Your task to perform on an android device: Is it going to rain this weekend? Image 0: 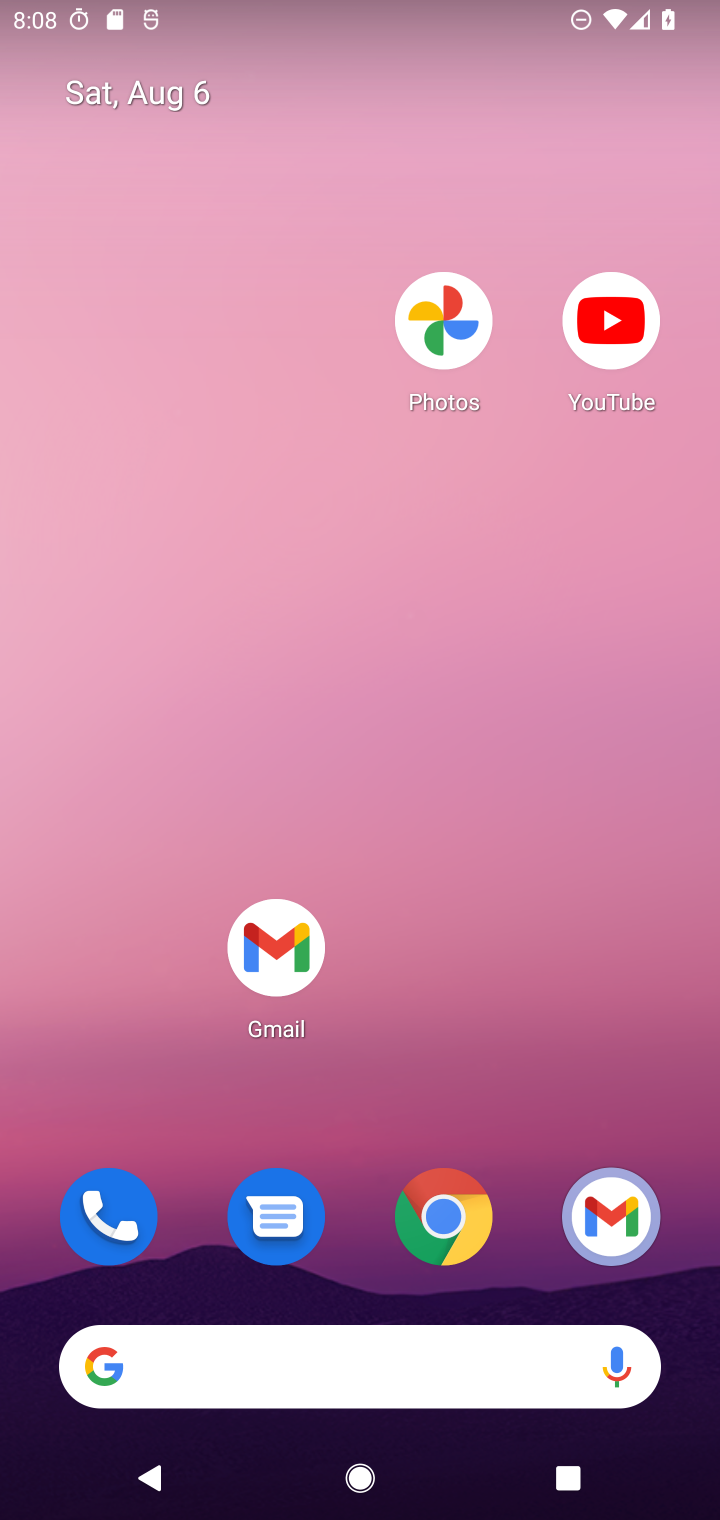
Step 0: drag from (489, 660) to (432, 84)
Your task to perform on an android device: Is it going to rain this weekend? Image 1: 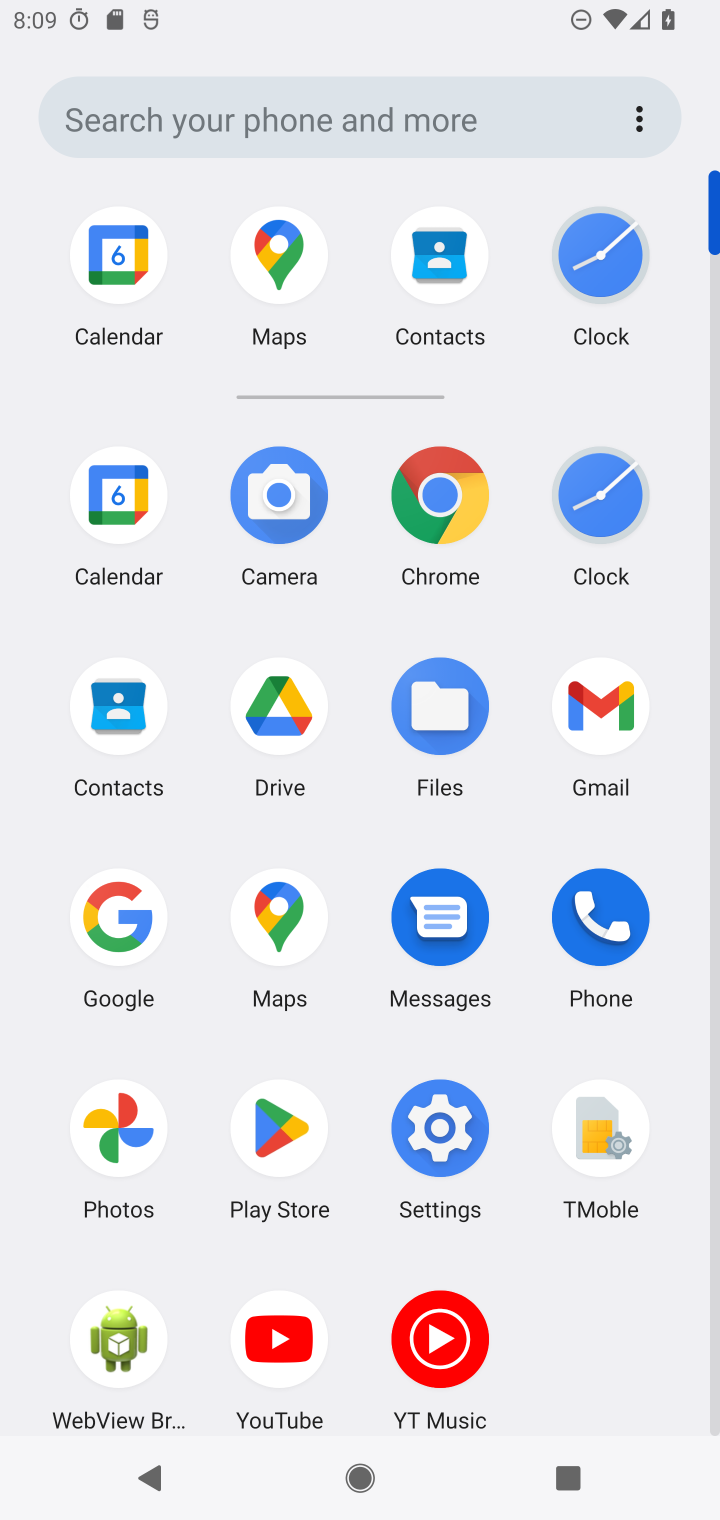
Step 1: click (435, 505)
Your task to perform on an android device: Is it going to rain this weekend? Image 2: 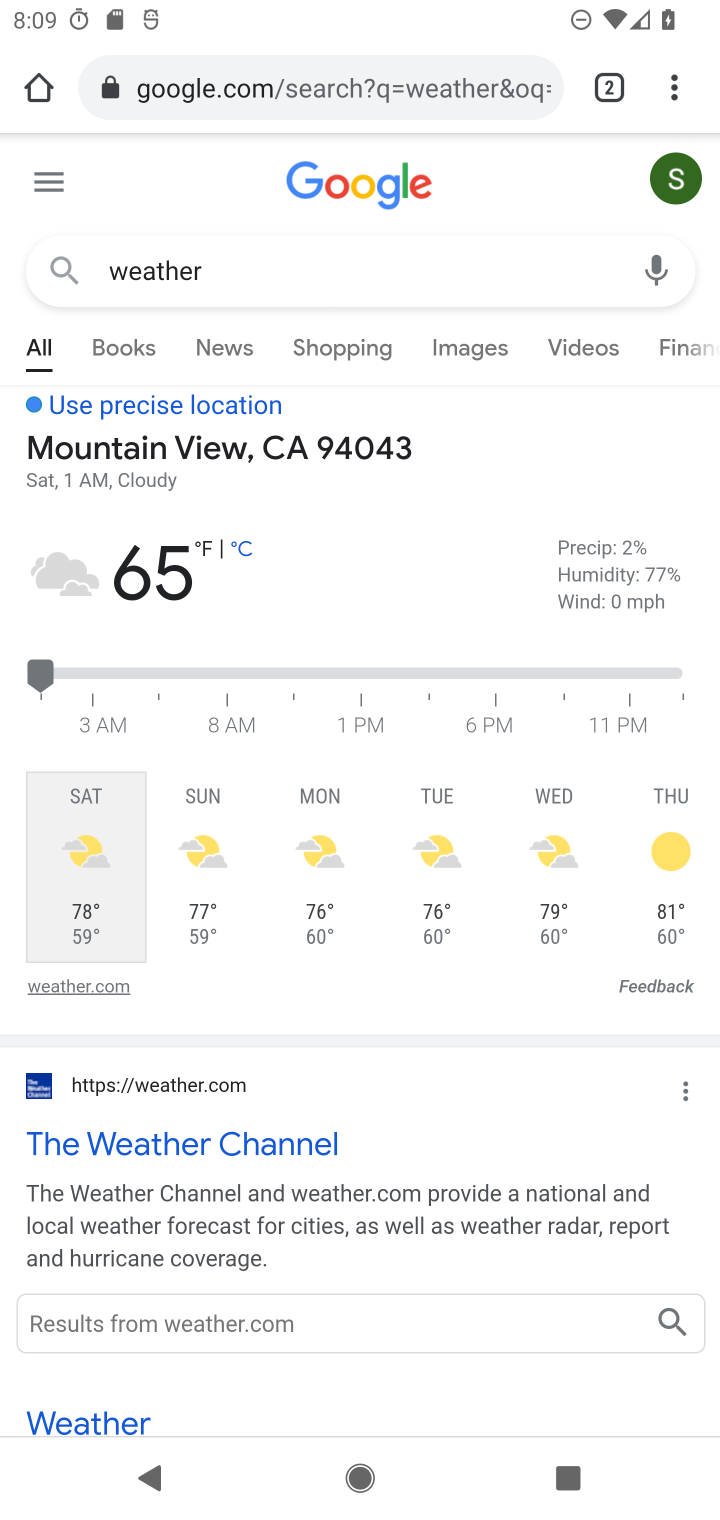
Step 2: click (221, 872)
Your task to perform on an android device: Is it going to rain this weekend? Image 3: 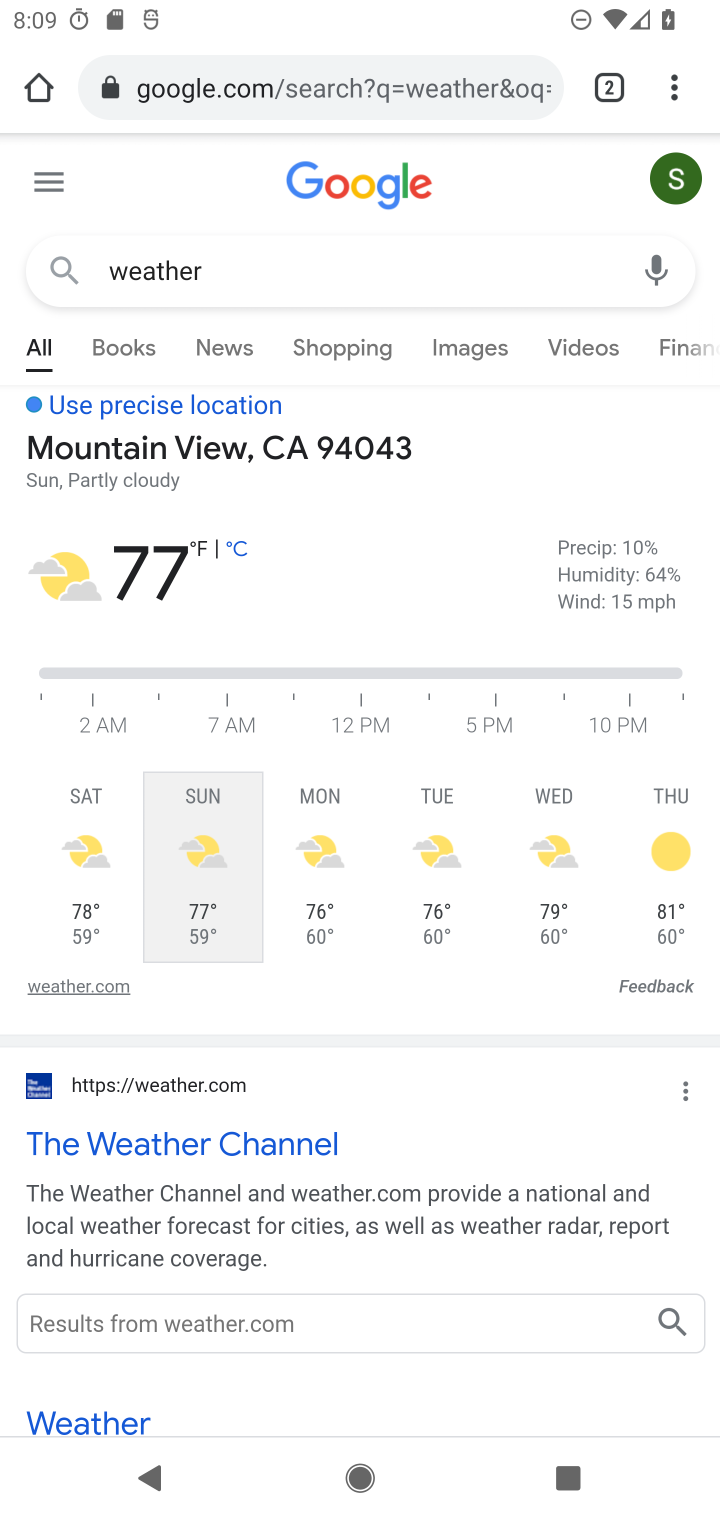
Step 3: task complete